Your task to perform on an android device: find photos in the google photos app Image 0: 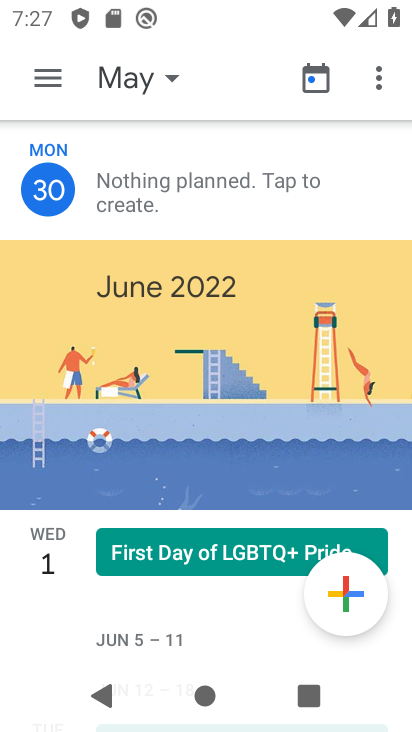
Step 0: press home button
Your task to perform on an android device: find photos in the google photos app Image 1: 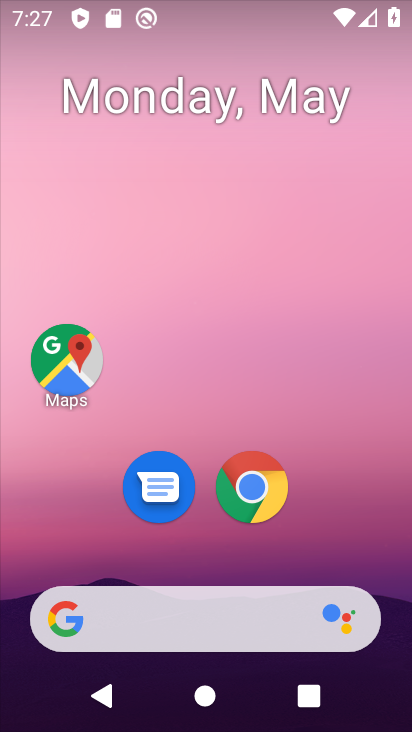
Step 1: drag from (355, 516) to (348, 164)
Your task to perform on an android device: find photos in the google photos app Image 2: 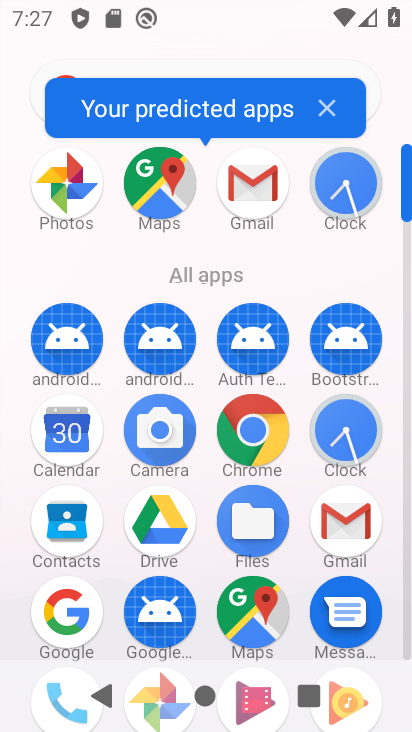
Step 2: drag from (398, 521) to (401, 252)
Your task to perform on an android device: find photos in the google photos app Image 3: 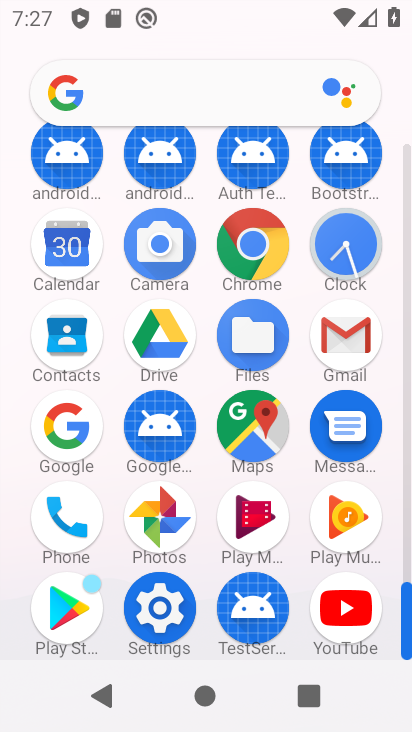
Step 3: click (170, 505)
Your task to perform on an android device: find photos in the google photos app Image 4: 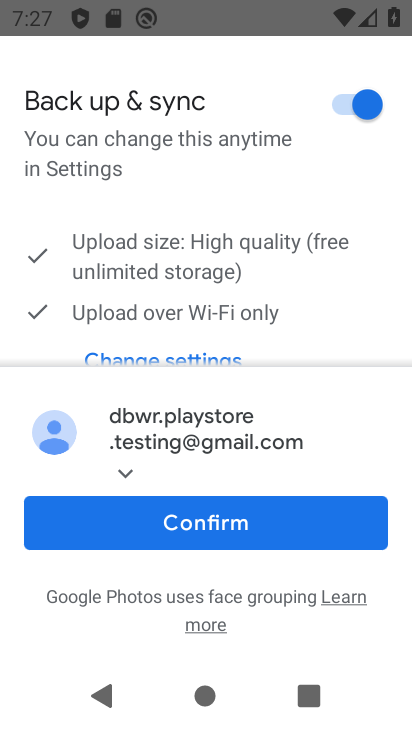
Step 4: click (185, 513)
Your task to perform on an android device: find photos in the google photos app Image 5: 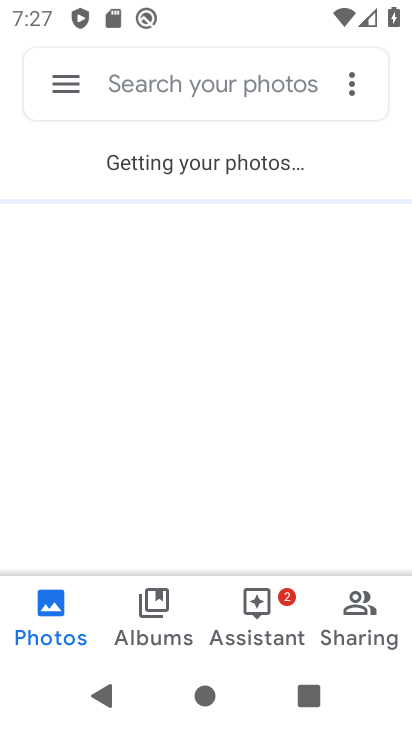
Step 5: click (51, 624)
Your task to perform on an android device: find photos in the google photos app Image 6: 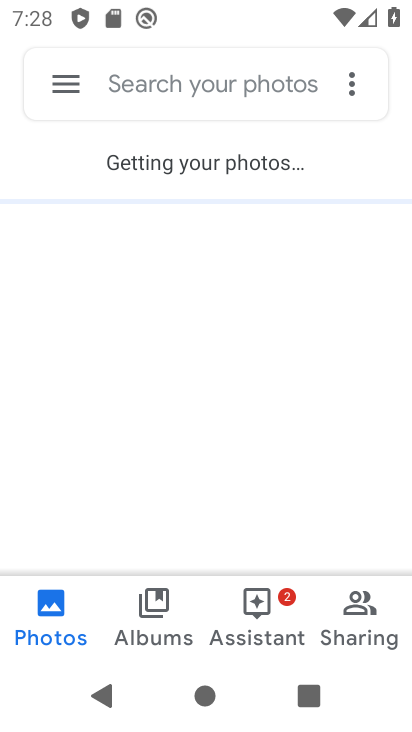
Step 6: task complete